Your task to perform on an android device: What's a good restaurant in New Jersey? Image 0: 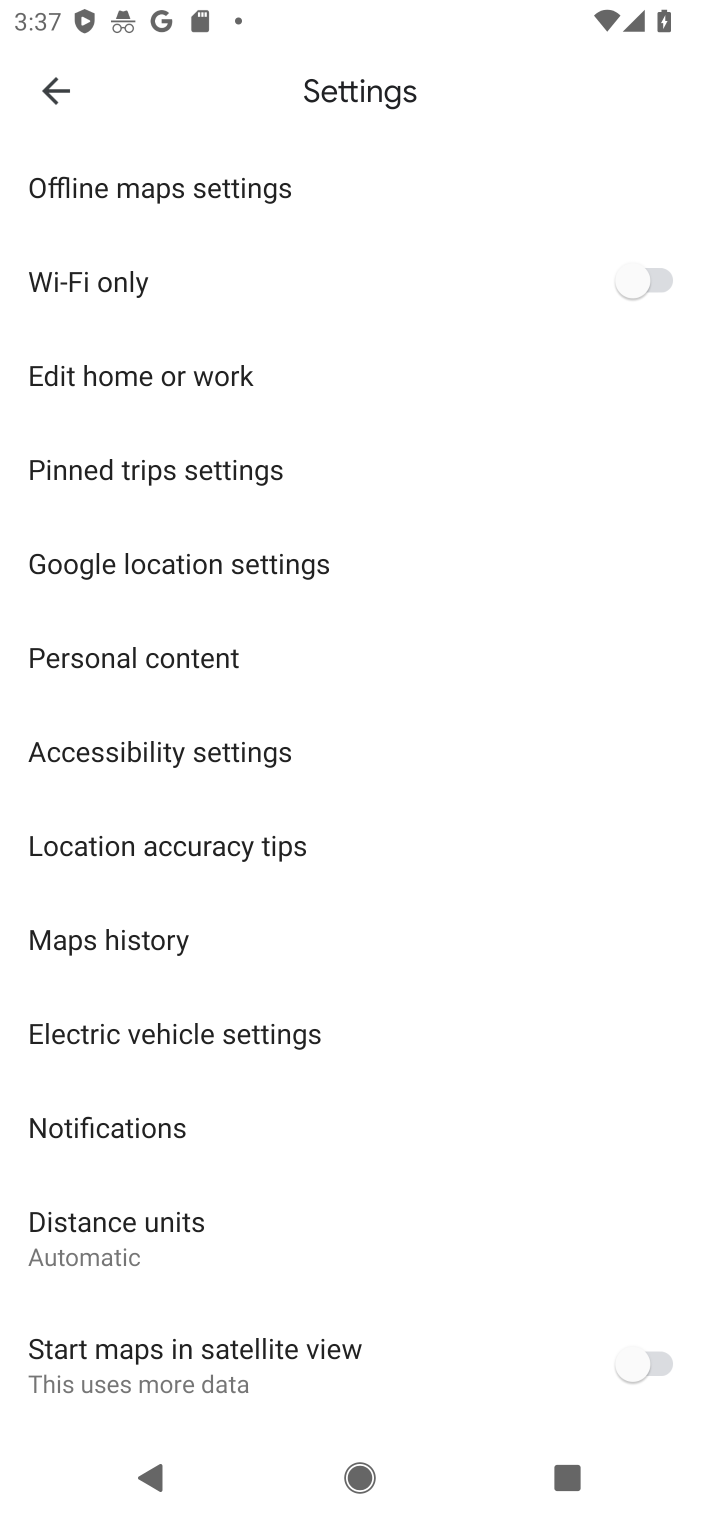
Step 0: press home button
Your task to perform on an android device: What's a good restaurant in New Jersey? Image 1: 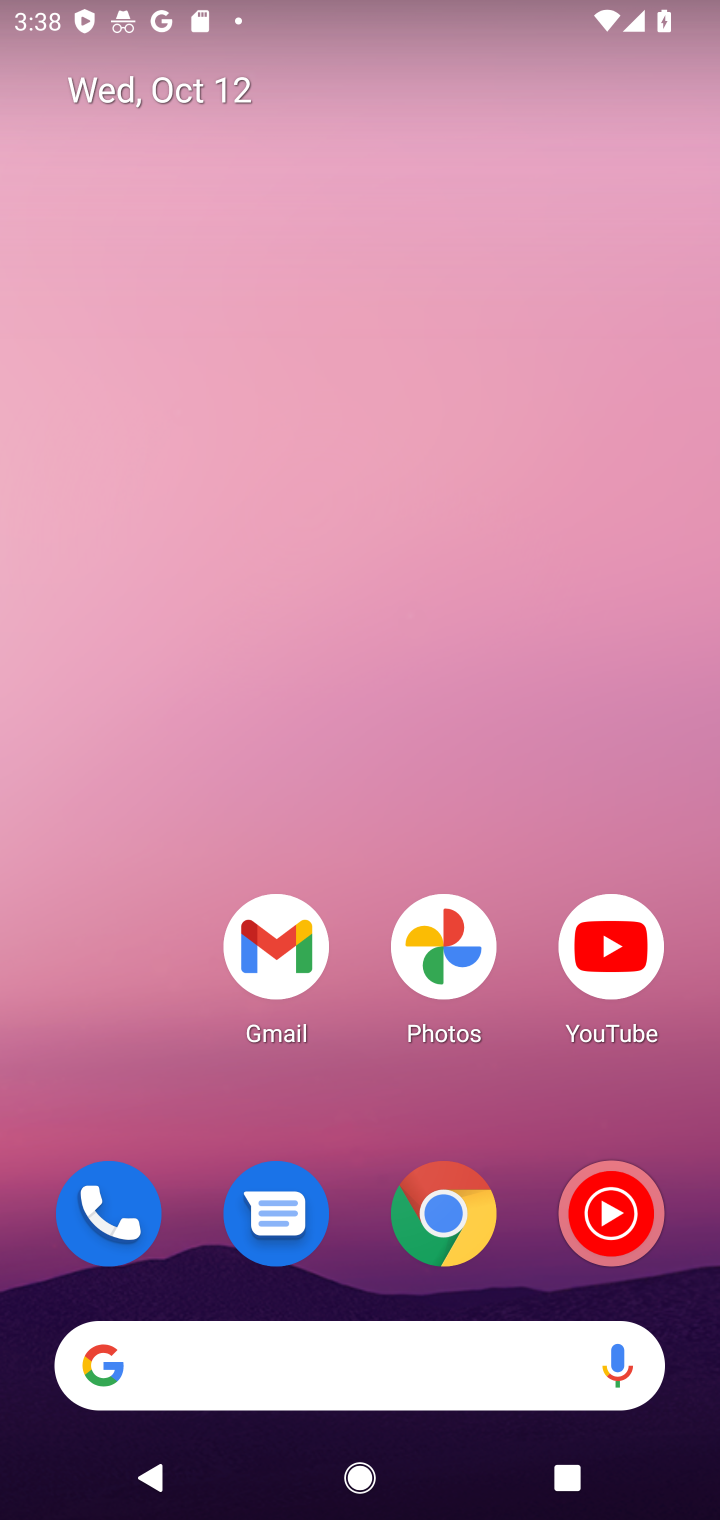
Step 1: click (332, 1363)
Your task to perform on an android device: What's a good restaurant in New Jersey? Image 2: 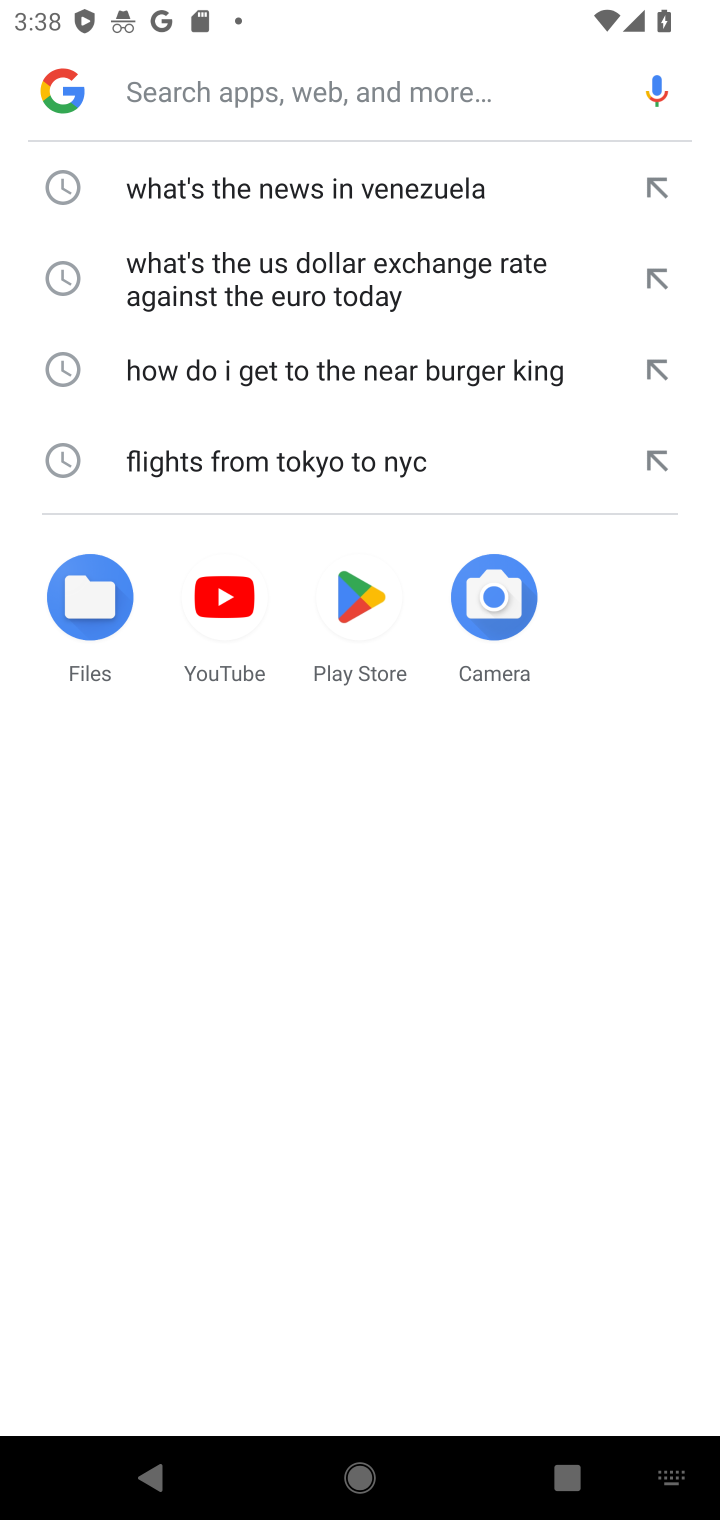
Step 2: click (232, 104)
Your task to perform on an android device: What's a good restaurant in New Jersey? Image 3: 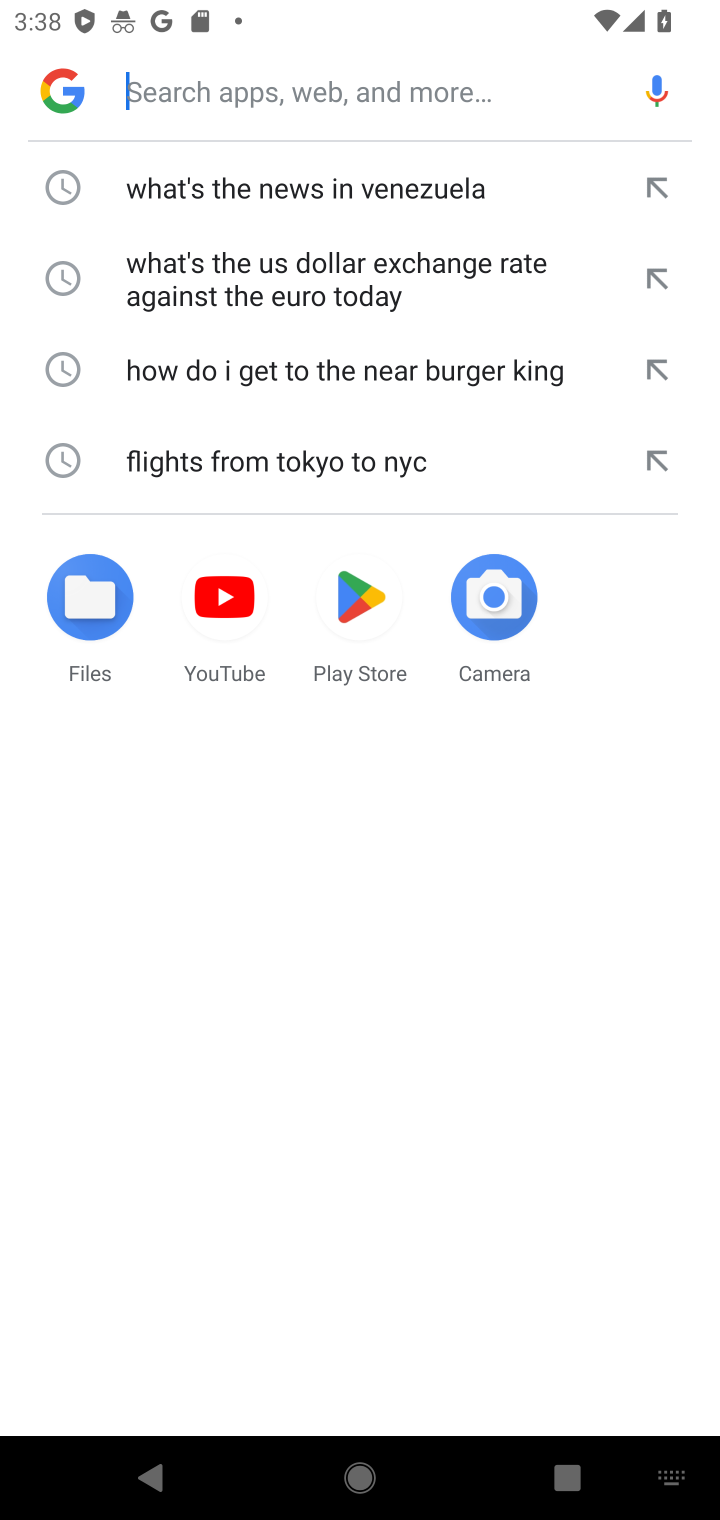
Step 3: type "What's a good restaurant in New Jersey?"
Your task to perform on an android device: What's a good restaurant in New Jersey? Image 4: 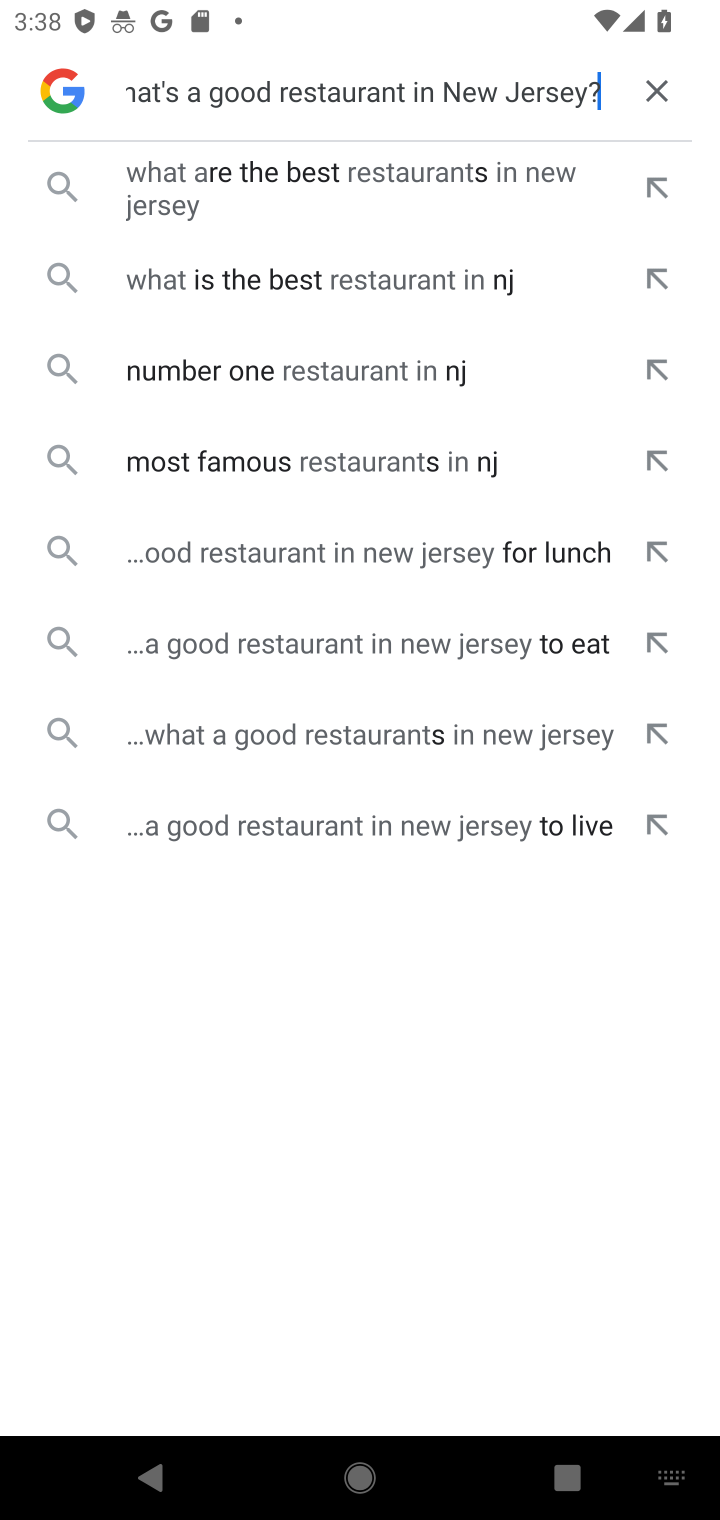
Step 4: click (377, 171)
Your task to perform on an android device: What's a good restaurant in New Jersey? Image 5: 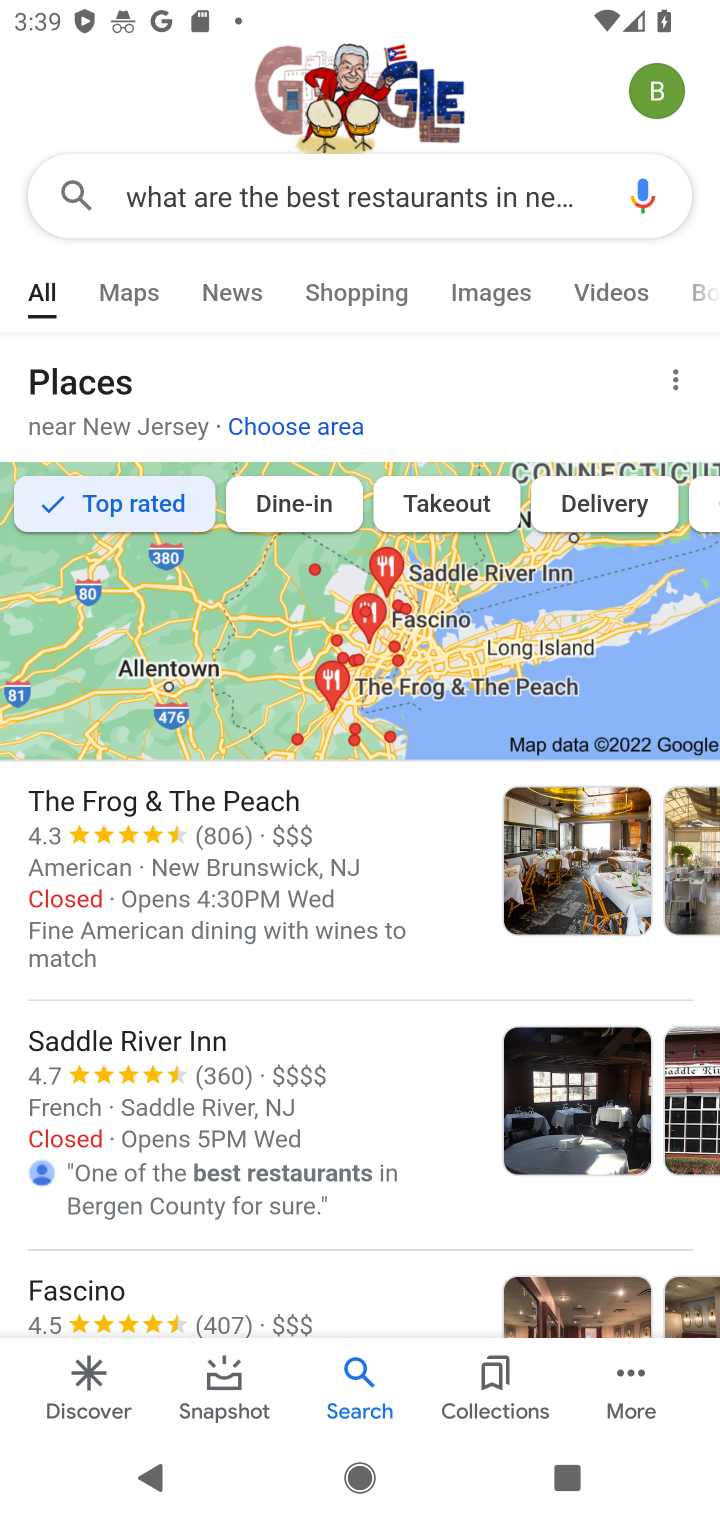
Step 5: task complete